Your task to perform on an android device: turn off location history Image 0: 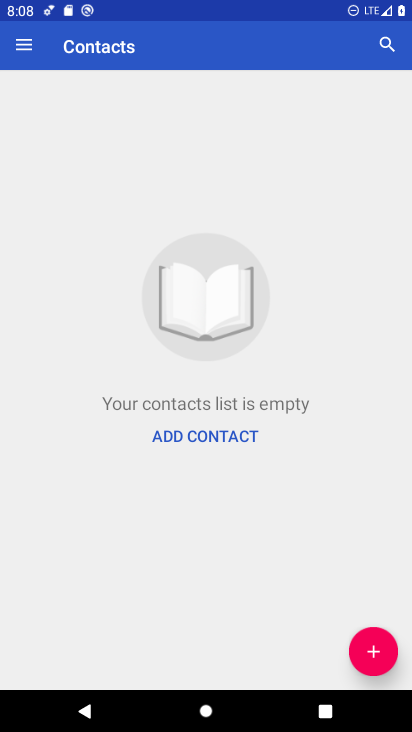
Step 0: press home button
Your task to perform on an android device: turn off location history Image 1: 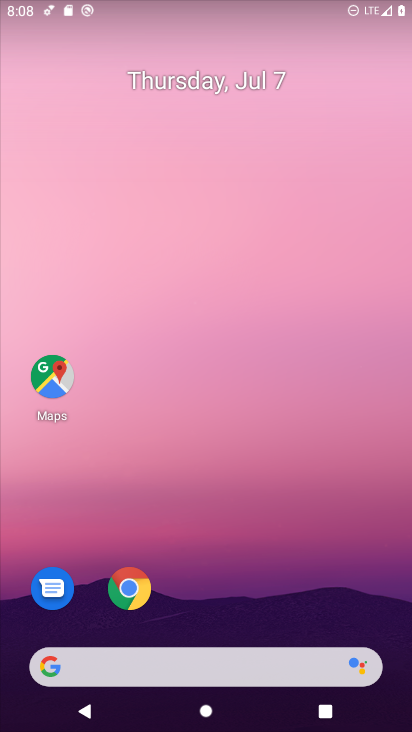
Step 1: drag from (192, 656) to (200, 461)
Your task to perform on an android device: turn off location history Image 2: 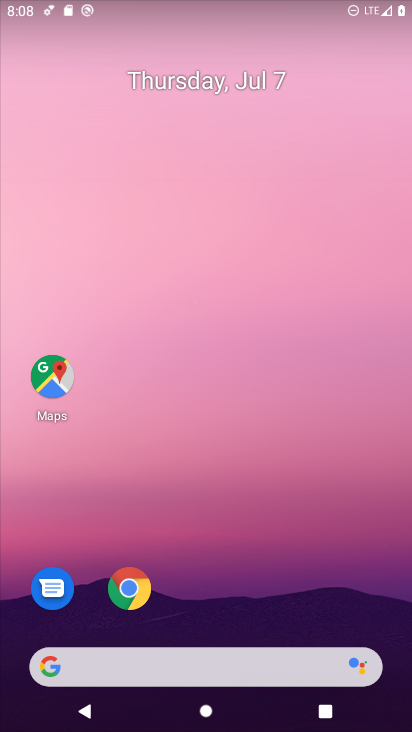
Step 2: drag from (183, 597) to (201, 345)
Your task to perform on an android device: turn off location history Image 3: 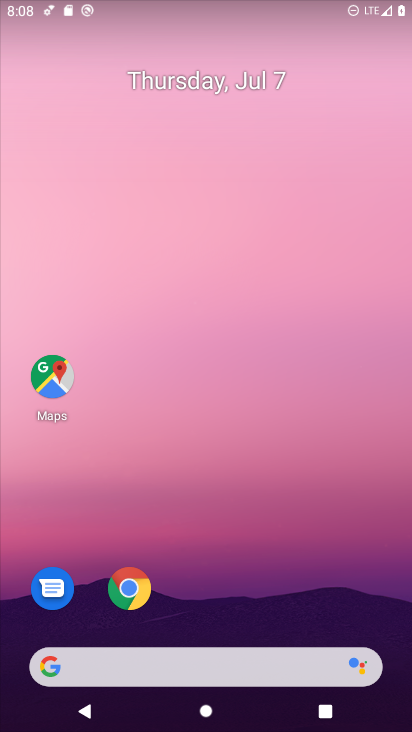
Step 3: drag from (199, 624) to (213, 319)
Your task to perform on an android device: turn off location history Image 4: 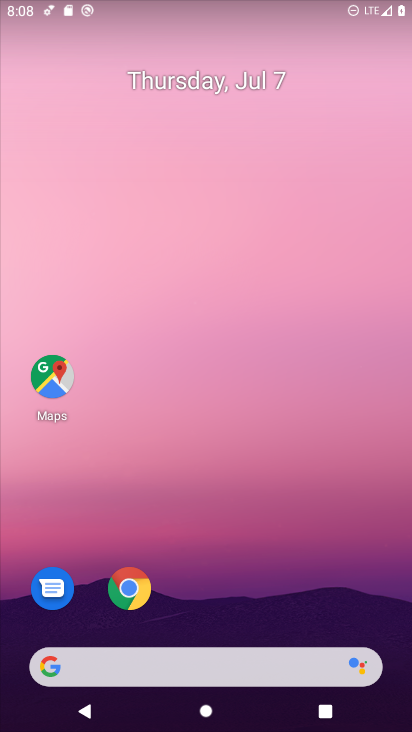
Step 4: drag from (191, 608) to (230, 293)
Your task to perform on an android device: turn off location history Image 5: 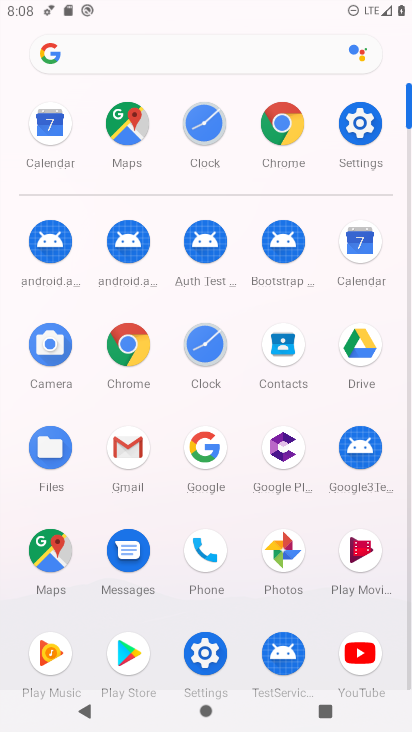
Step 5: click (357, 118)
Your task to perform on an android device: turn off location history Image 6: 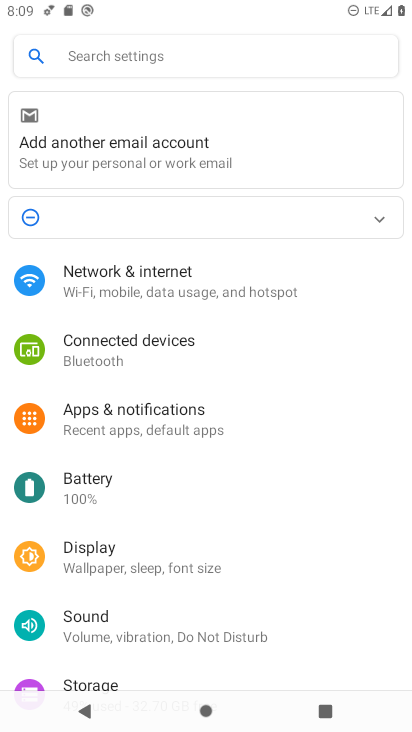
Step 6: drag from (96, 564) to (125, 191)
Your task to perform on an android device: turn off location history Image 7: 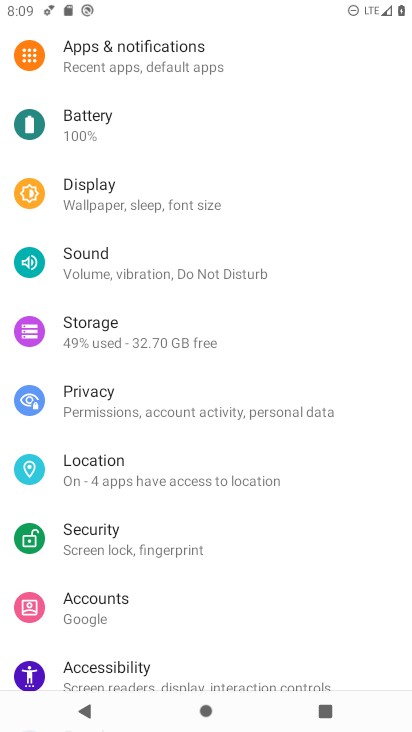
Step 7: click (143, 456)
Your task to perform on an android device: turn off location history Image 8: 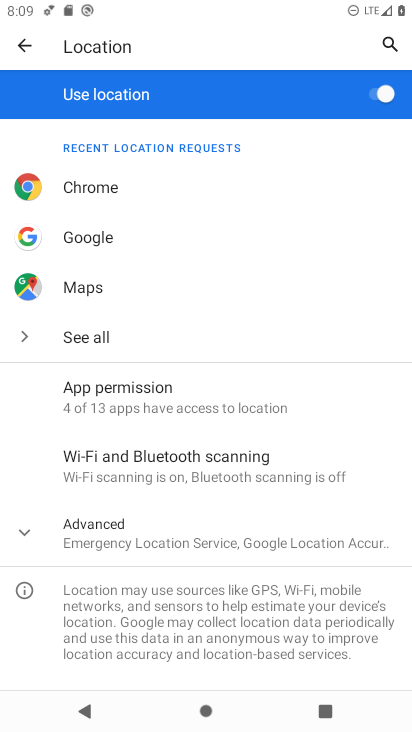
Step 8: click (159, 540)
Your task to perform on an android device: turn off location history Image 9: 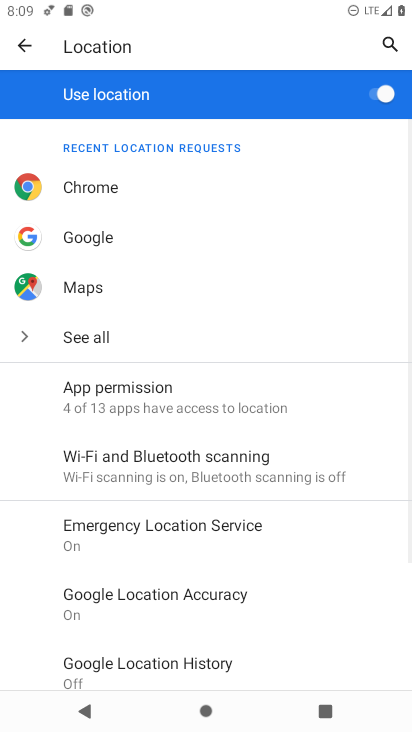
Step 9: drag from (216, 635) to (224, 508)
Your task to perform on an android device: turn off location history Image 10: 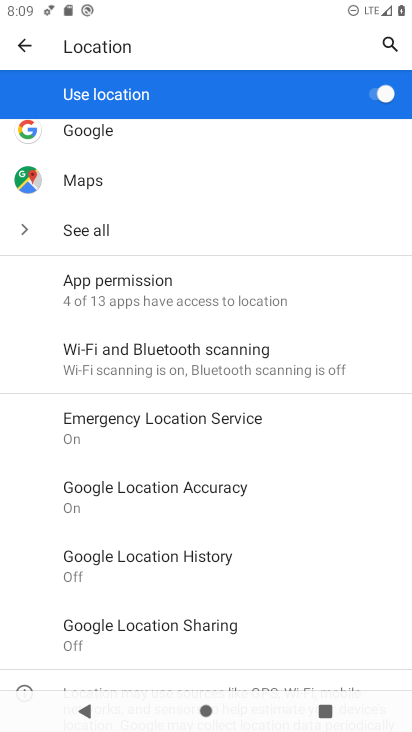
Step 10: click (154, 575)
Your task to perform on an android device: turn off location history Image 11: 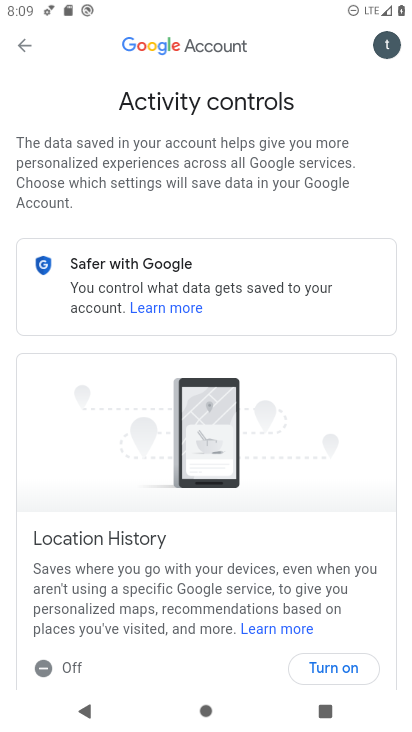
Step 11: drag from (264, 631) to (248, 391)
Your task to perform on an android device: turn off location history Image 12: 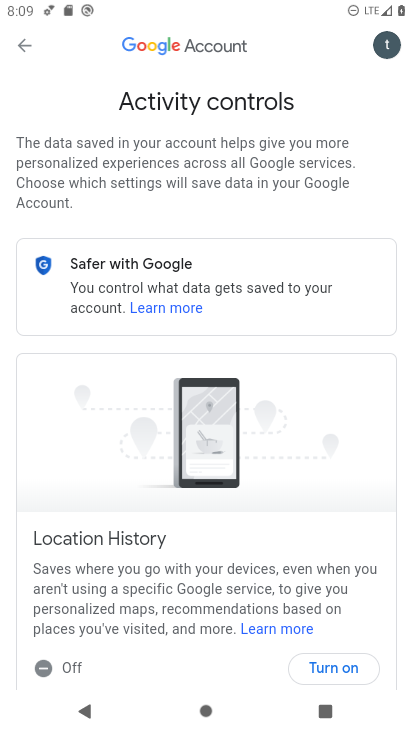
Step 12: click (58, 667)
Your task to perform on an android device: turn off location history Image 13: 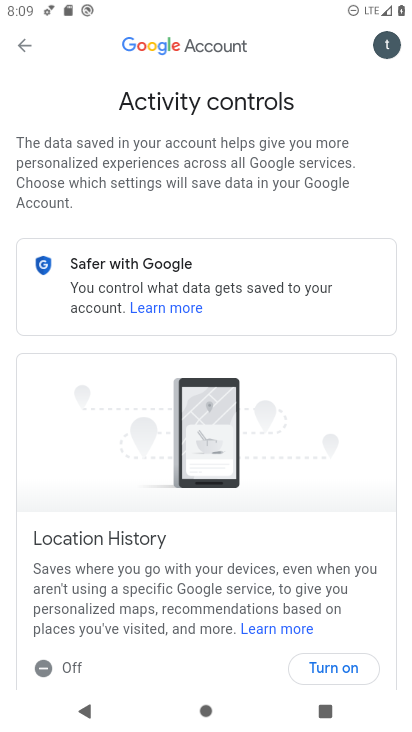
Step 13: task complete